Your task to perform on an android device: Open Yahoo.com Image 0: 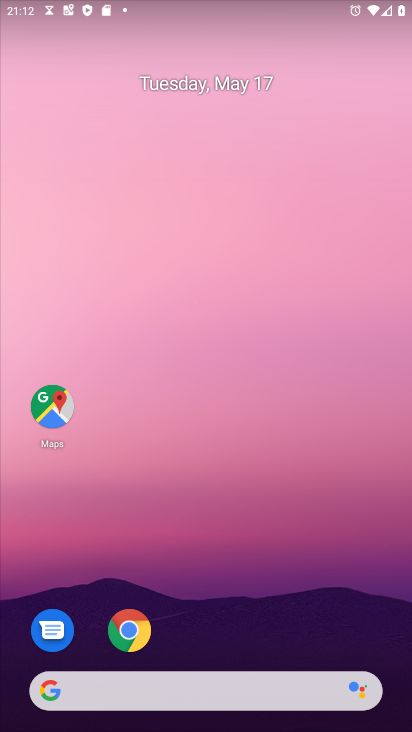
Step 0: click (141, 633)
Your task to perform on an android device: Open Yahoo.com Image 1: 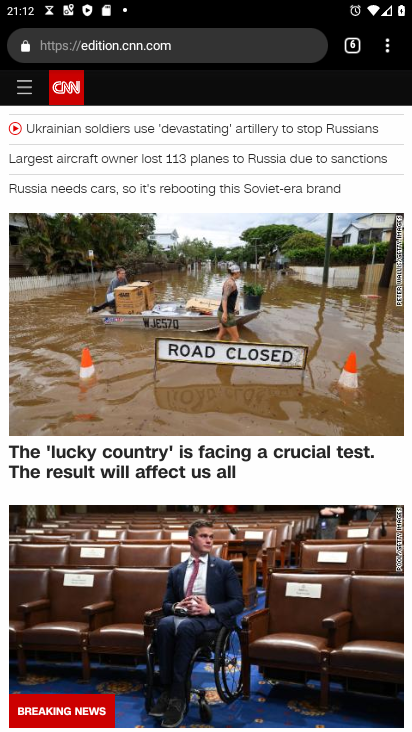
Step 1: click (350, 50)
Your task to perform on an android device: Open Yahoo.com Image 2: 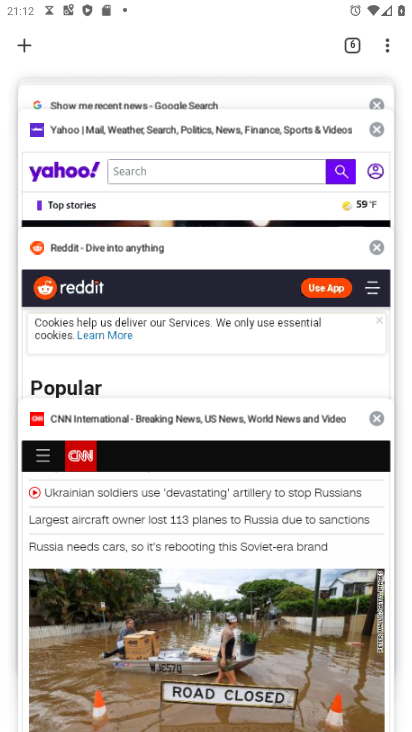
Step 2: click (195, 181)
Your task to perform on an android device: Open Yahoo.com Image 3: 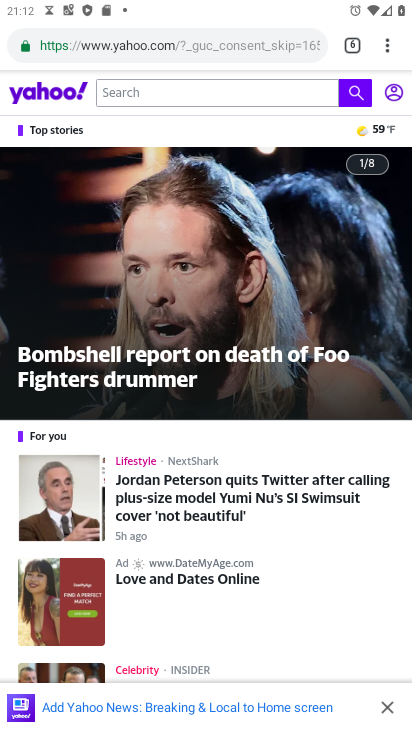
Step 3: task complete